Your task to perform on an android device: turn pop-ups on in chrome Image 0: 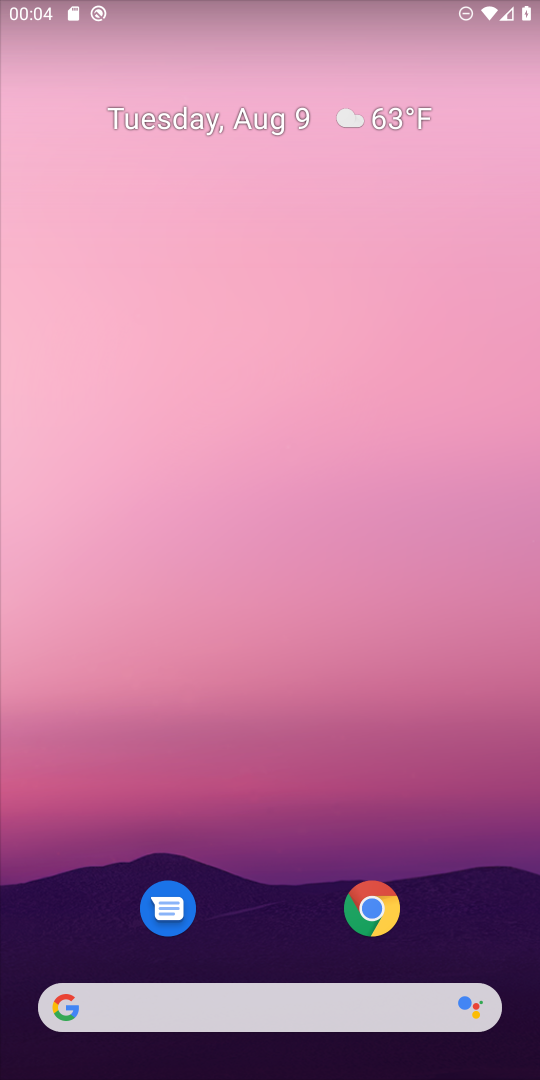
Step 0: click (379, 904)
Your task to perform on an android device: turn pop-ups on in chrome Image 1: 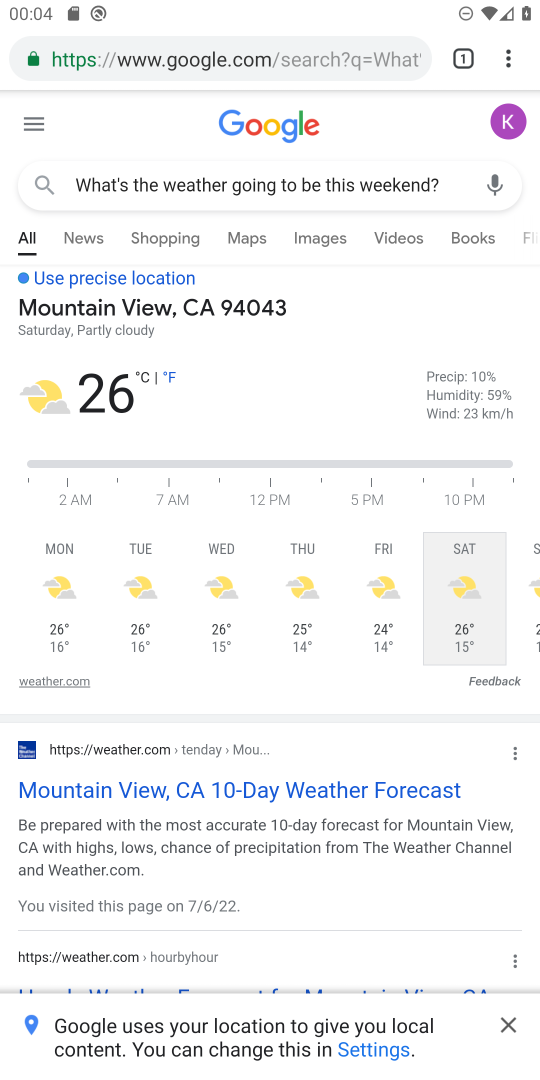
Step 1: click (517, 71)
Your task to perform on an android device: turn pop-ups on in chrome Image 2: 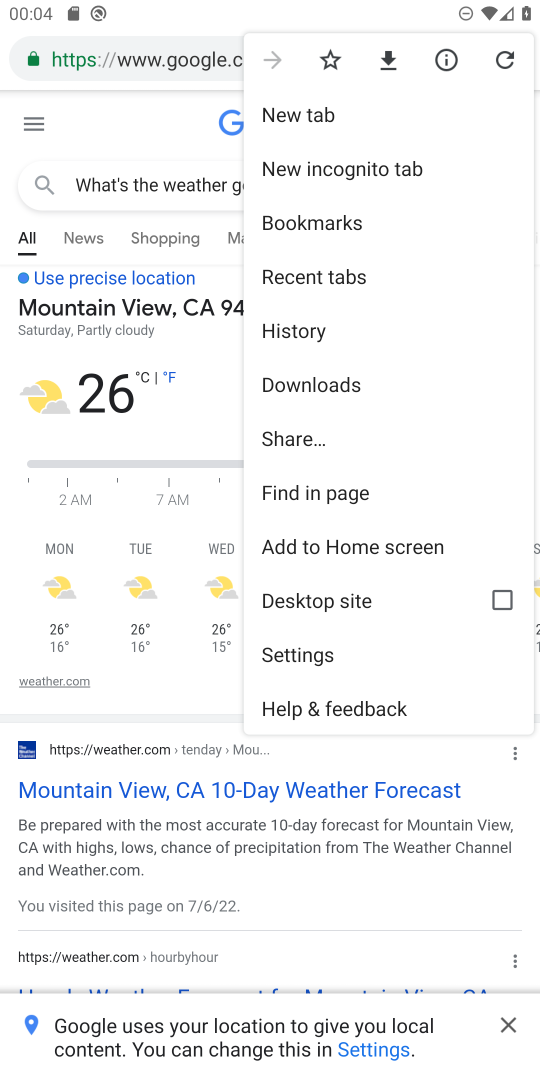
Step 2: click (371, 656)
Your task to perform on an android device: turn pop-ups on in chrome Image 3: 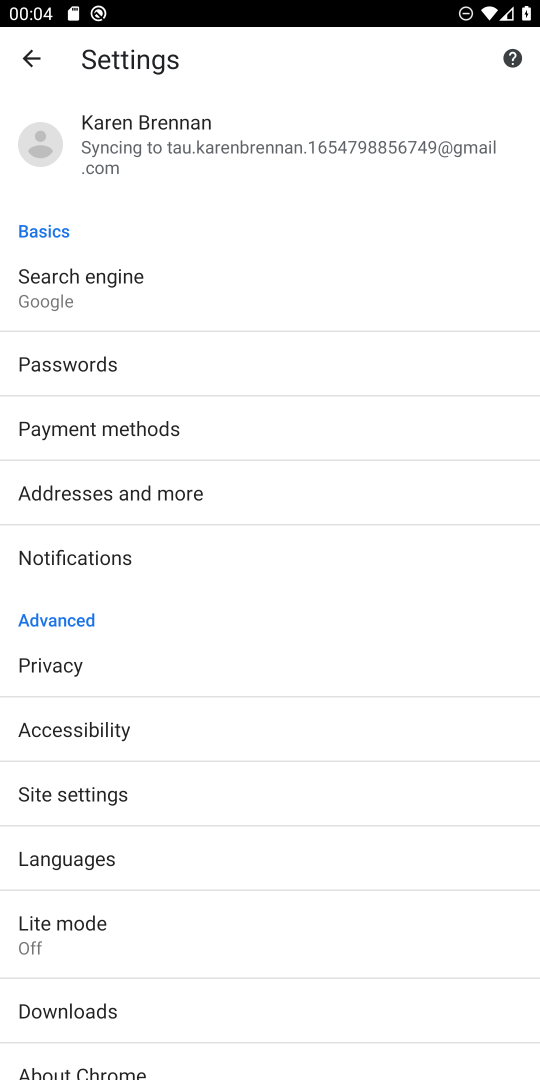
Step 3: click (189, 792)
Your task to perform on an android device: turn pop-ups on in chrome Image 4: 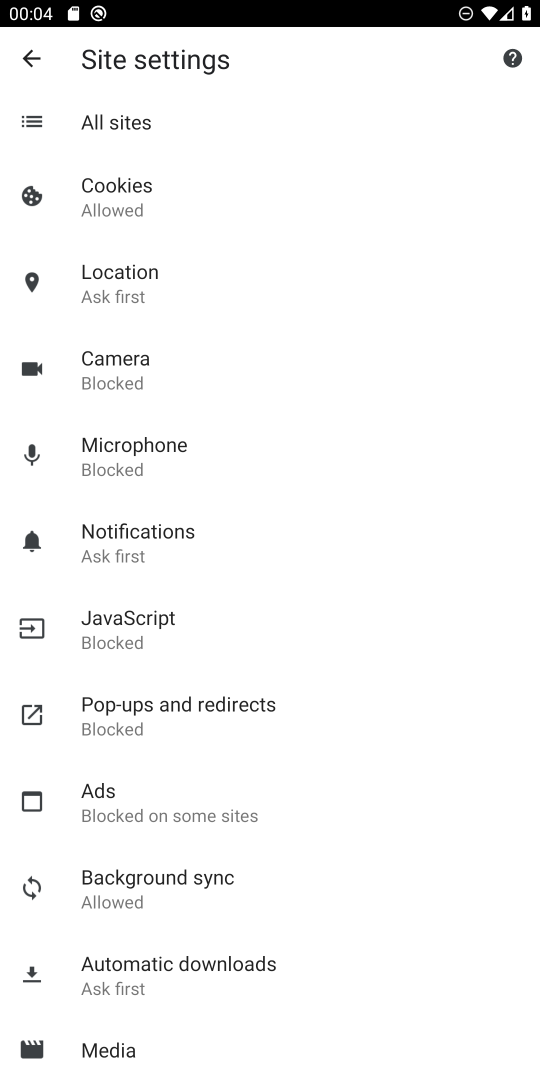
Step 4: click (204, 737)
Your task to perform on an android device: turn pop-ups on in chrome Image 5: 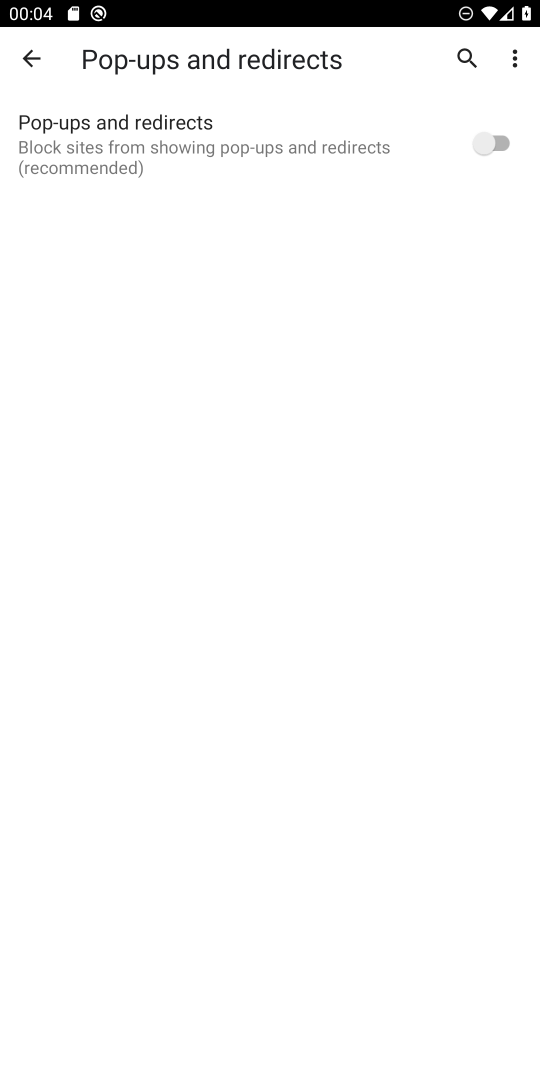
Step 5: click (472, 161)
Your task to perform on an android device: turn pop-ups on in chrome Image 6: 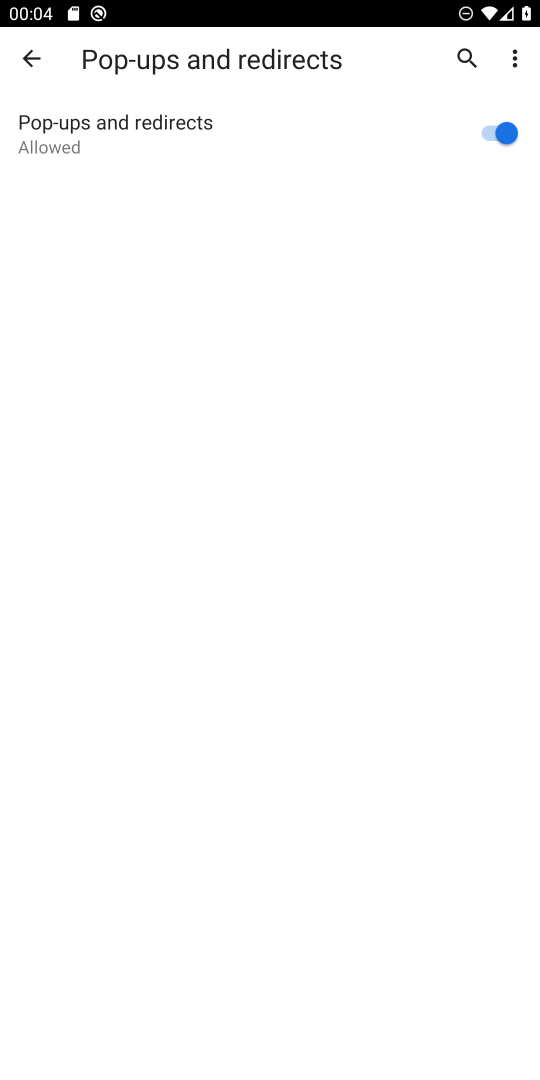
Step 6: task complete